Your task to perform on an android device: What's the weather today? Image 0: 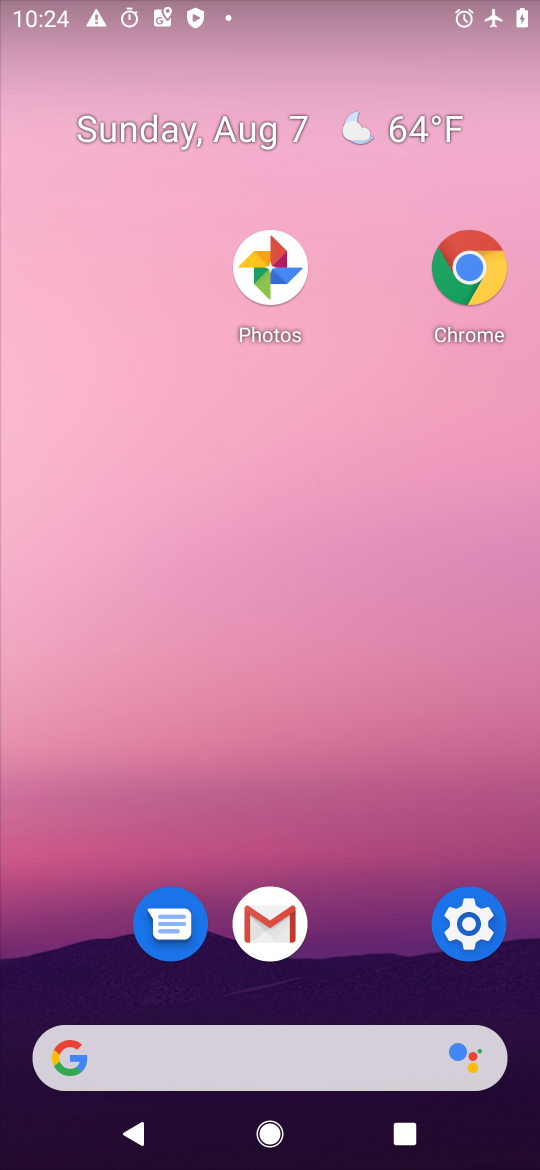
Step 0: drag from (244, 800) to (318, 192)
Your task to perform on an android device: What's the weather today? Image 1: 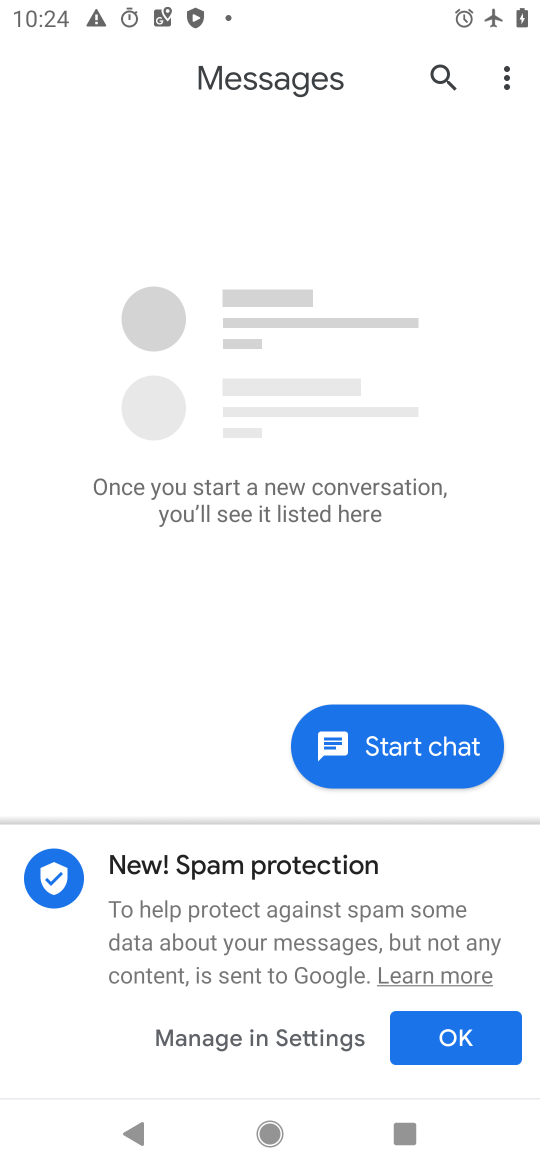
Step 1: press home button
Your task to perform on an android device: What's the weather today? Image 2: 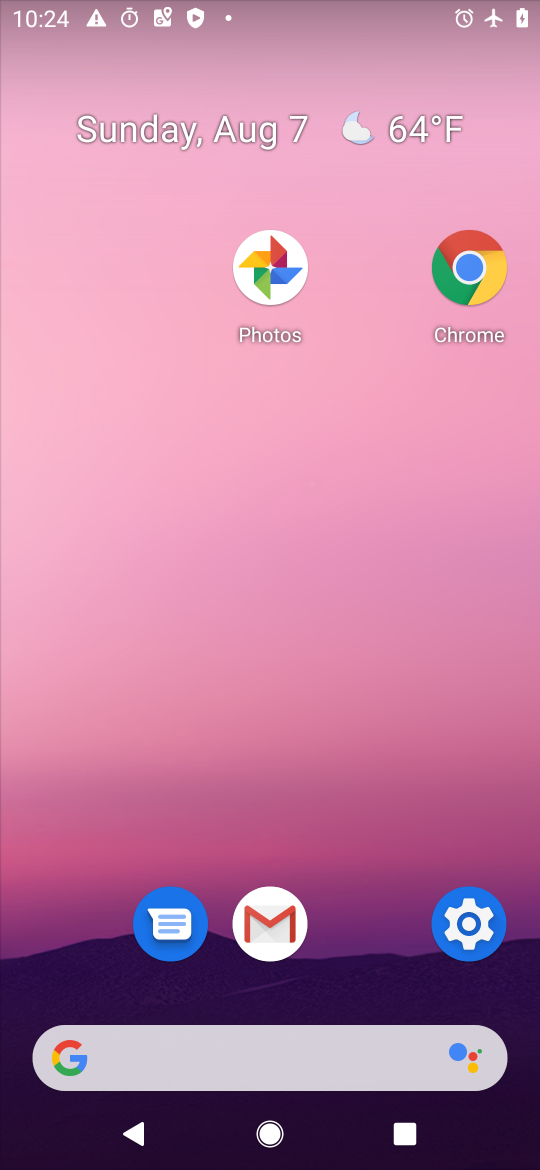
Step 2: drag from (267, 861) to (122, 201)
Your task to perform on an android device: What's the weather today? Image 3: 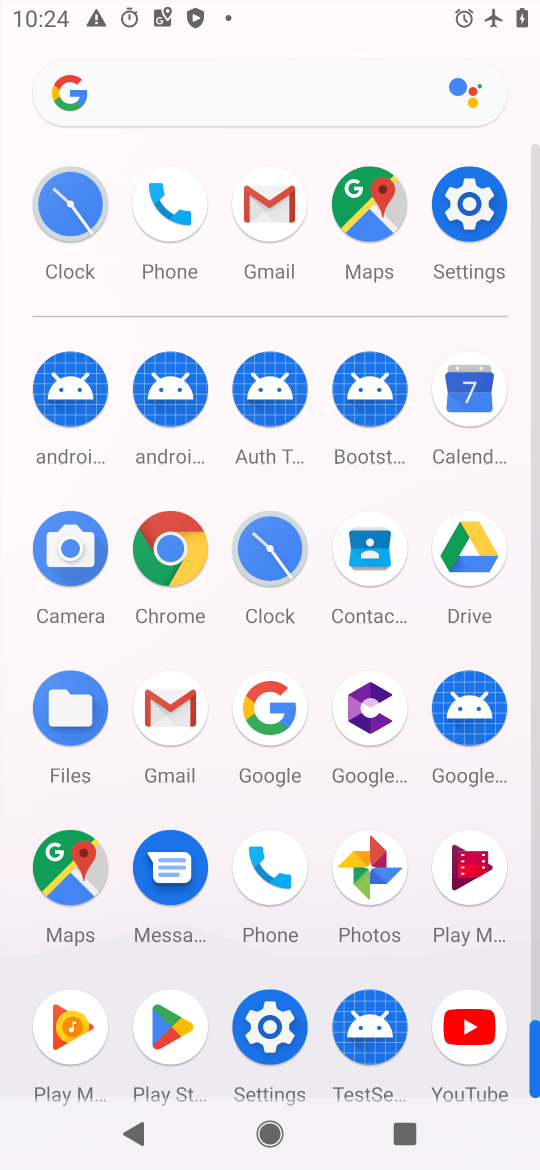
Step 3: click (136, 102)
Your task to perform on an android device: What's the weather today? Image 4: 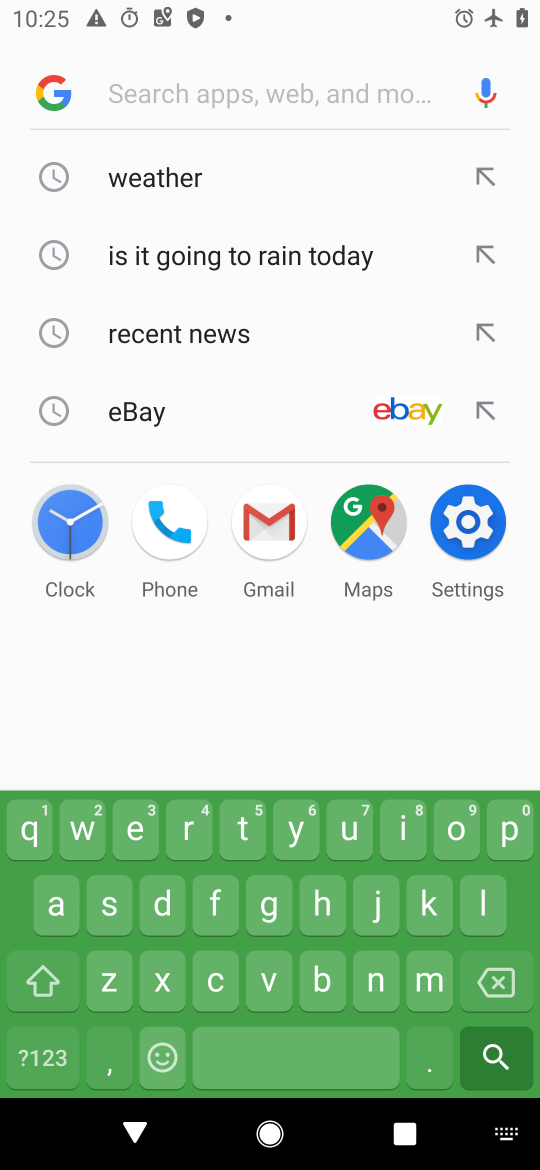
Step 4: click (166, 170)
Your task to perform on an android device: What's the weather today? Image 5: 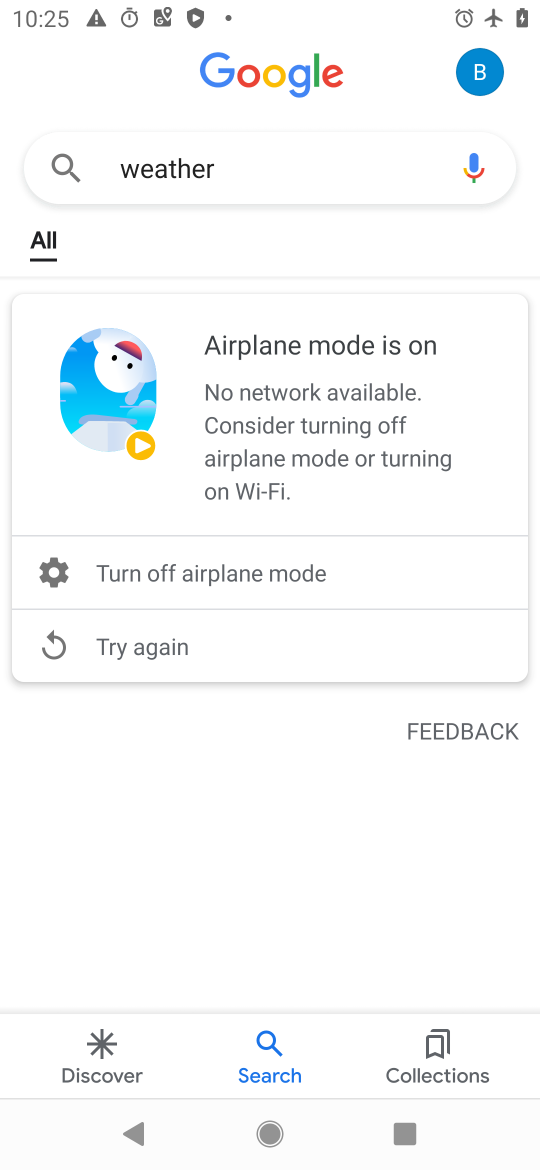
Step 5: click (162, 652)
Your task to perform on an android device: What's the weather today? Image 6: 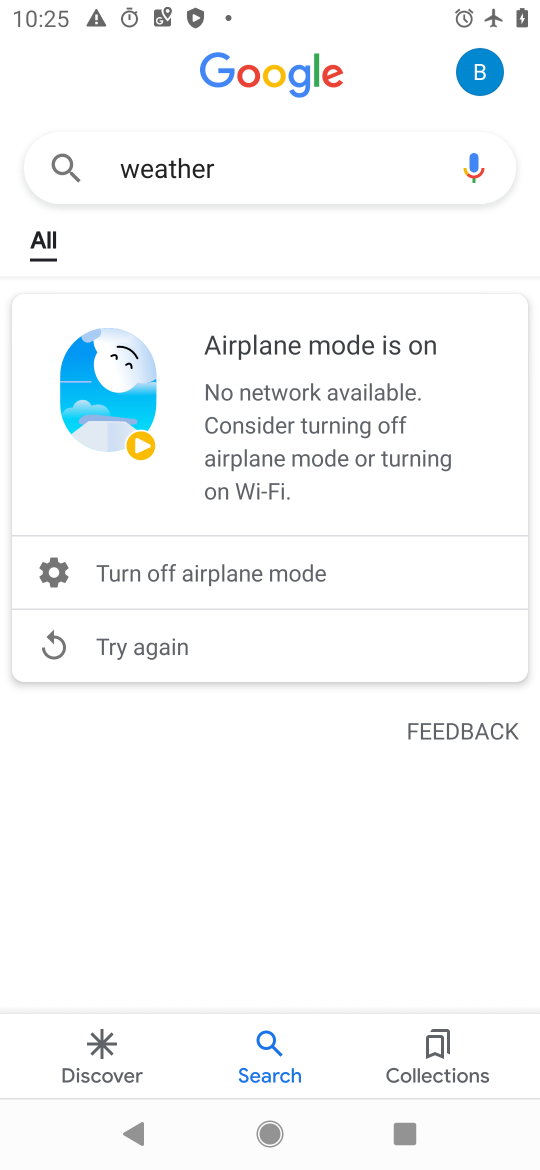
Step 6: press home button
Your task to perform on an android device: What's the weather today? Image 7: 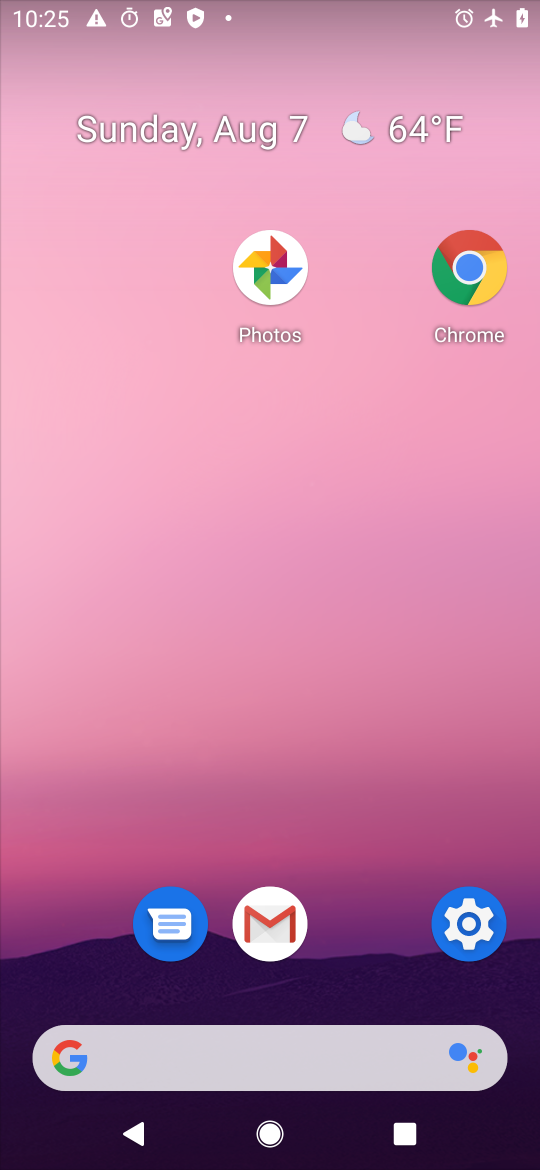
Step 7: click (470, 927)
Your task to perform on an android device: What's the weather today? Image 8: 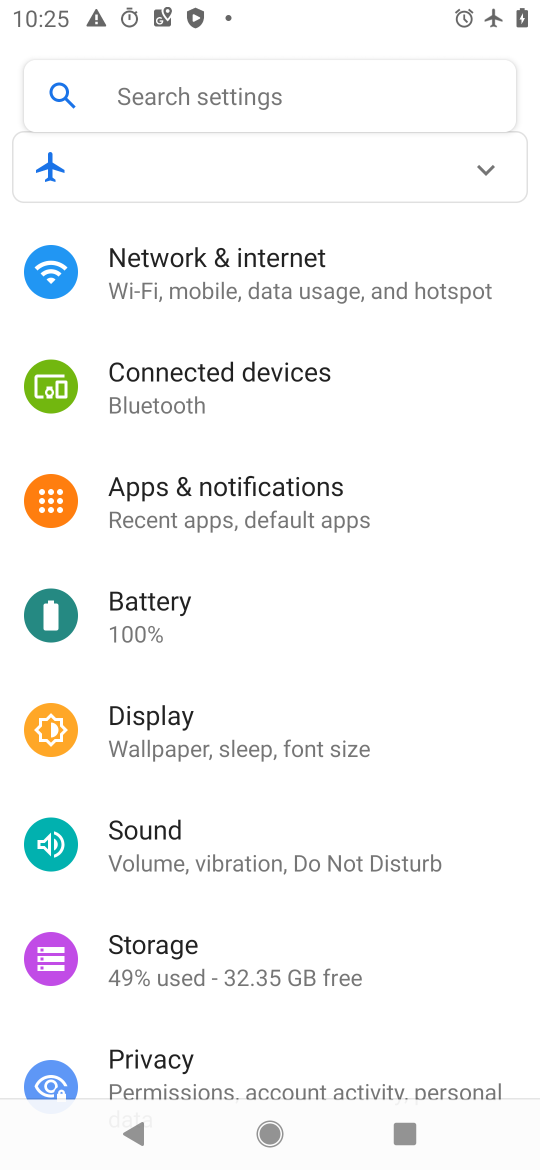
Step 8: click (475, 185)
Your task to perform on an android device: What's the weather today? Image 9: 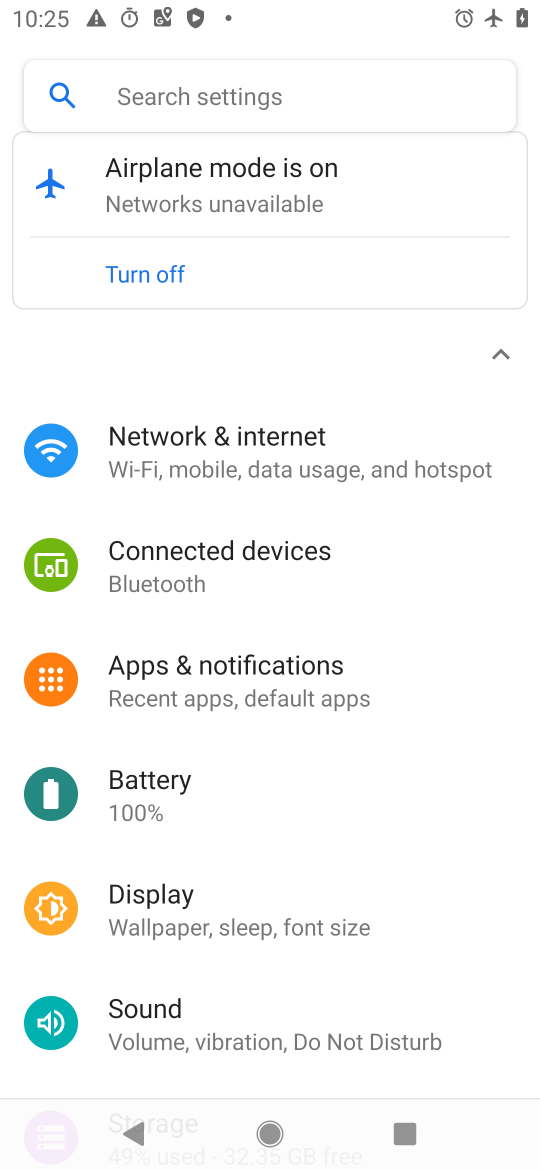
Step 9: click (185, 272)
Your task to perform on an android device: What's the weather today? Image 10: 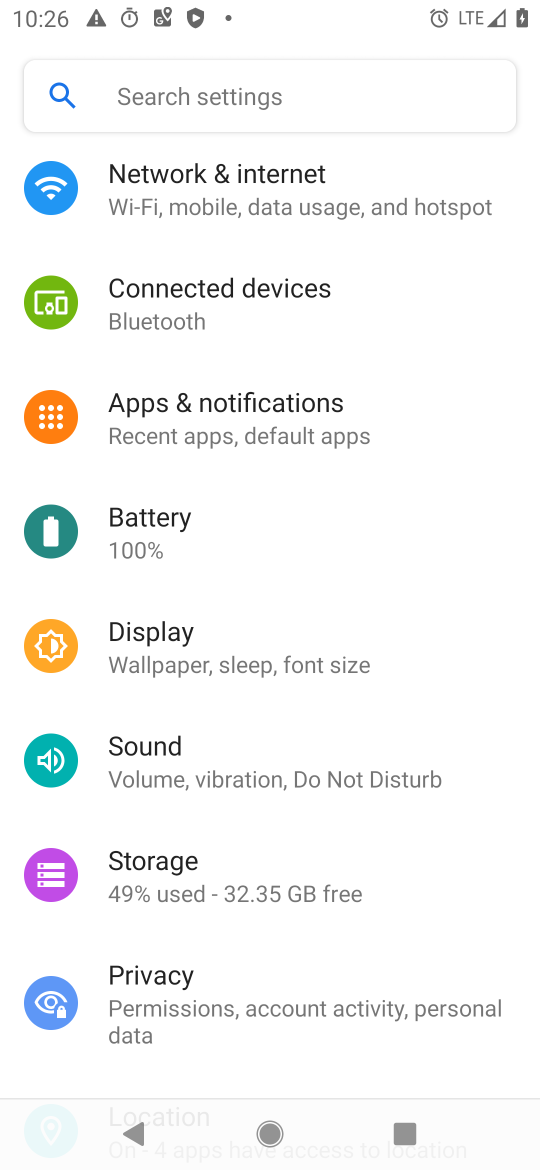
Step 10: press home button
Your task to perform on an android device: What's the weather today? Image 11: 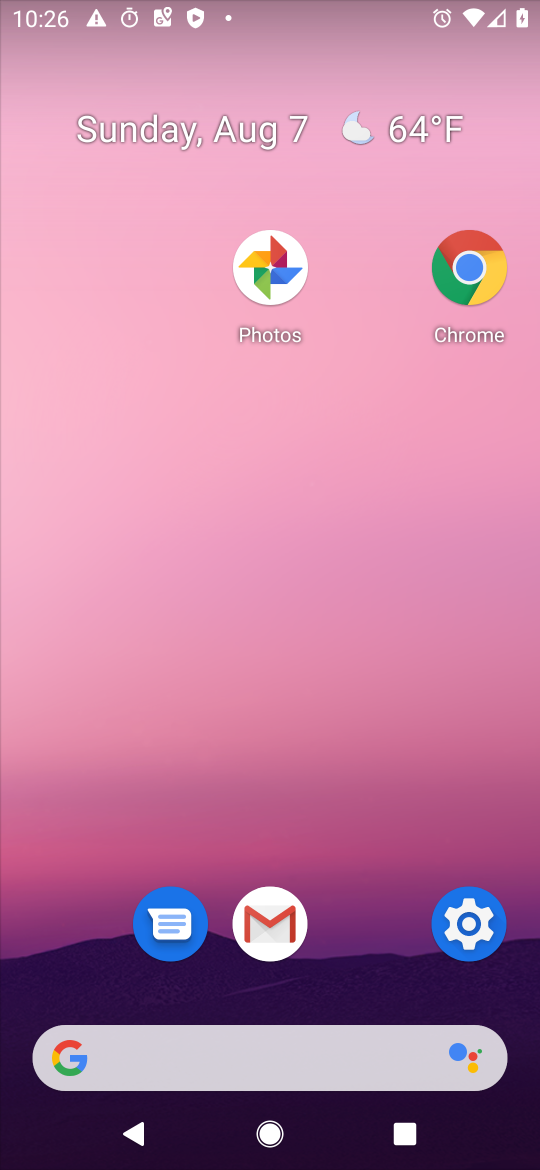
Step 11: click (218, 1067)
Your task to perform on an android device: What's the weather today? Image 12: 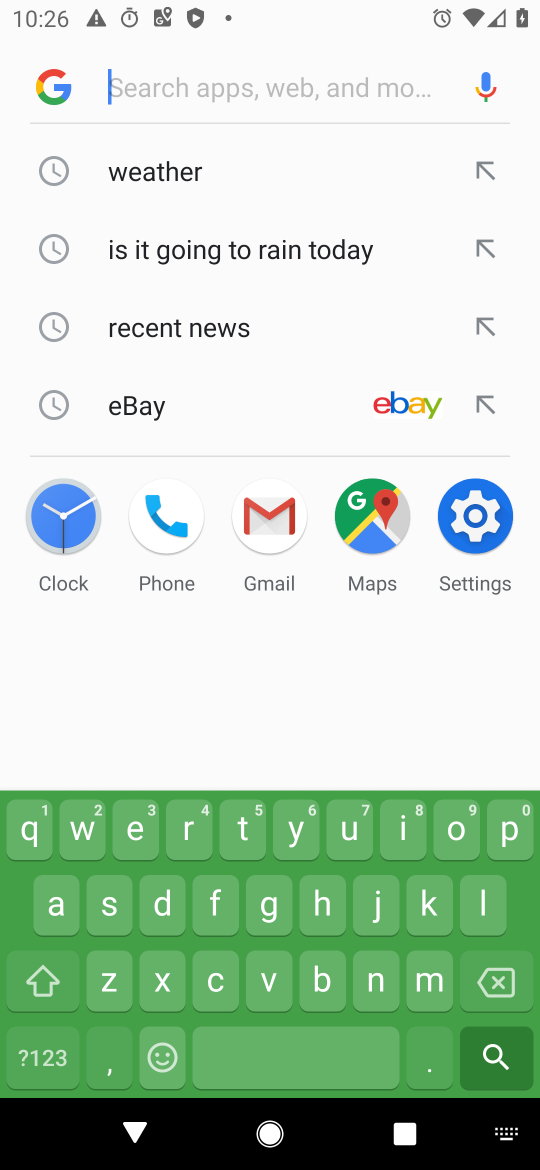
Step 12: click (199, 185)
Your task to perform on an android device: What's the weather today? Image 13: 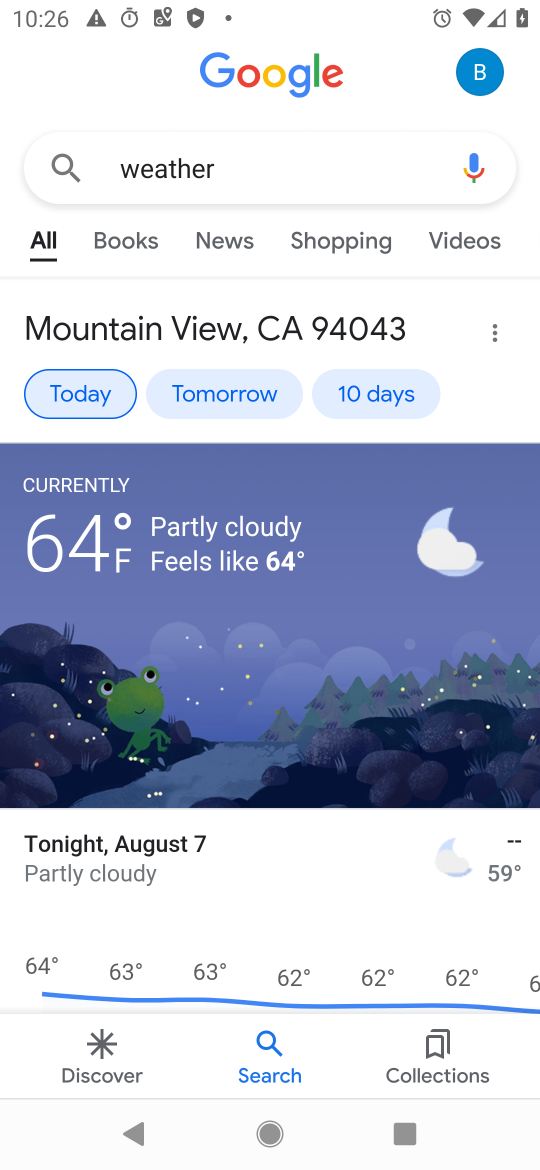
Step 13: task complete